Your task to perform on an android device: Do I have any events this weekend? Image 0: 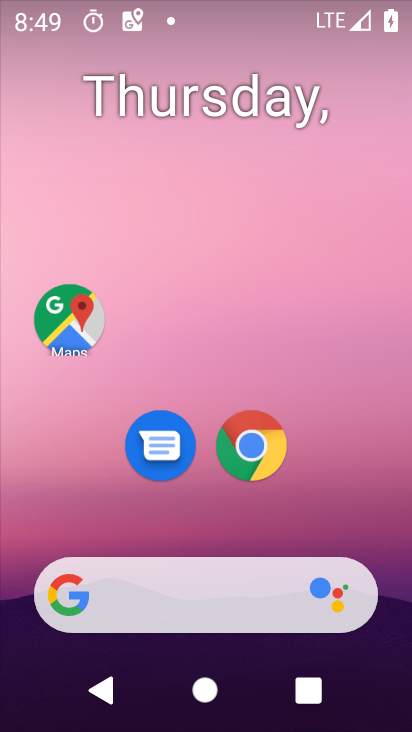
Step 0: drag from (223, 466) to (234, 391)
Your task to perform on an android device: Do I have any events this weekend? Image 1: 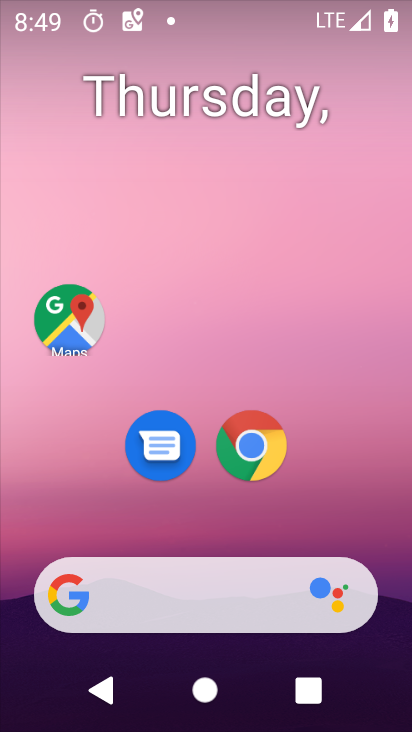
Step 1: drag from (224, 509) to (235, 331)
Your task to perform on an android device: Do I have any events this weekend? Image 2: 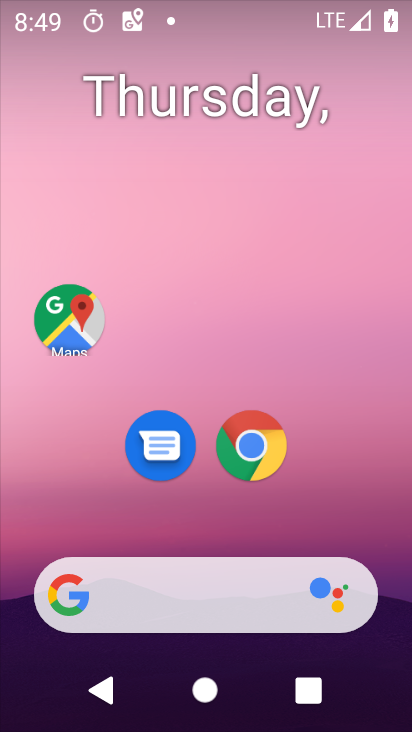
Step 2: drag from (214, 551) to (0, 301)
Your task to perform on an android device: Do I have any events this weekend? Image 3: 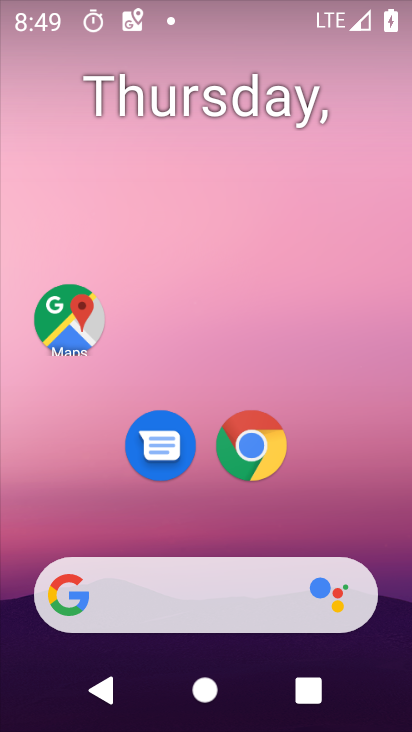
Step 3: drag from (194, 531) to (188, 217)
Your task to perform on an android device: Do I have any events this weekend? Image 4: 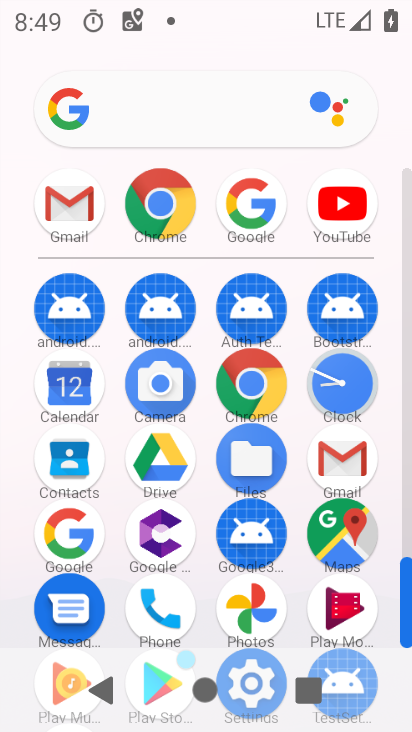
Step 4: drag from (205, 579) to (215, 286)
Your task to perform on an android device: Do I have any events this weekend? Image 5: 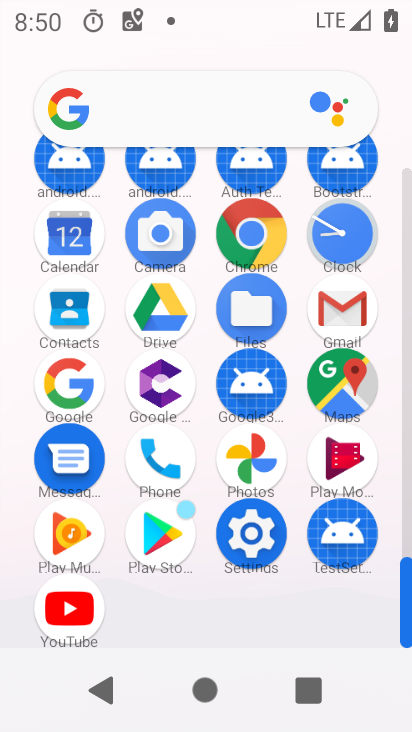
Step 5: click (58, 237)
Your task to perform on an android device: Do I have any events this weekend? Image 6: 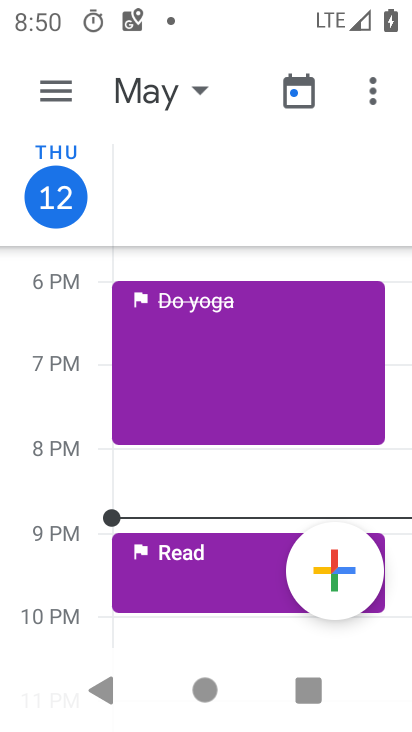
Step 6: drag from (226, 536) to (212, 10)
Your task to perform on an android device: Do I have any events this weekend? Image 7: 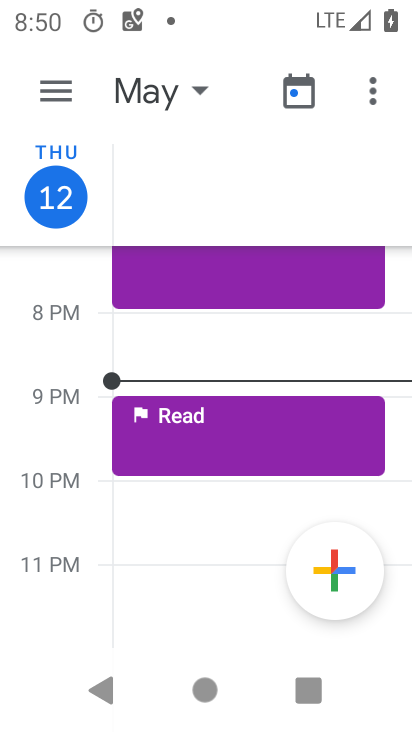
Step 7: drag from (238, 540) to (234, 259)
Your task to perform on an android device: Do I have any events this weekend? Image 8: 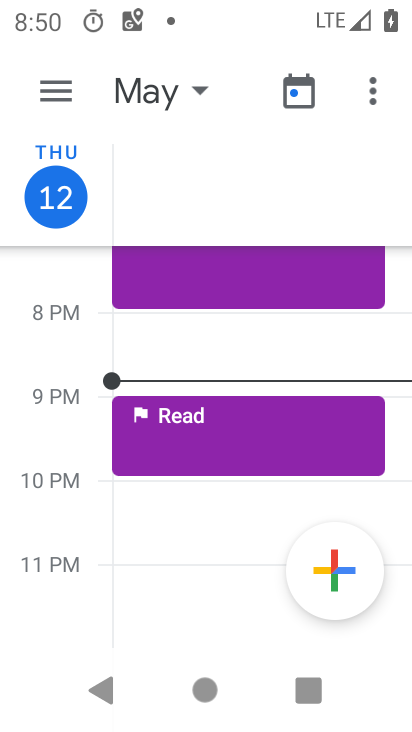
Step 8: click (174, 81)
Your task to perform on an android device: Do I have any events this weekend? Image 9: 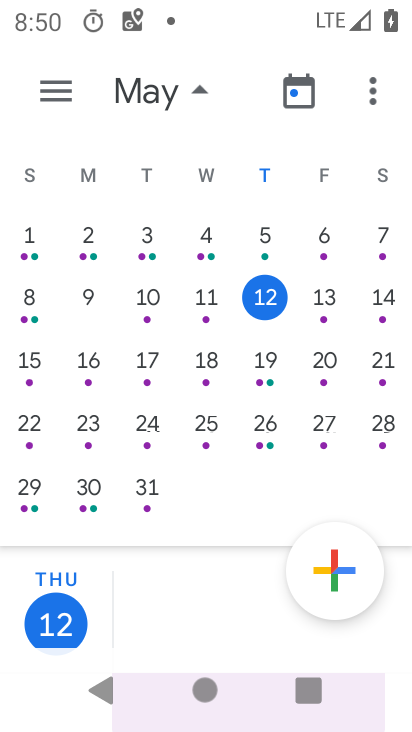
Step 9: click (162, 85)
Your task to perform on an android device: Do I have any events this weekend? Image 10: 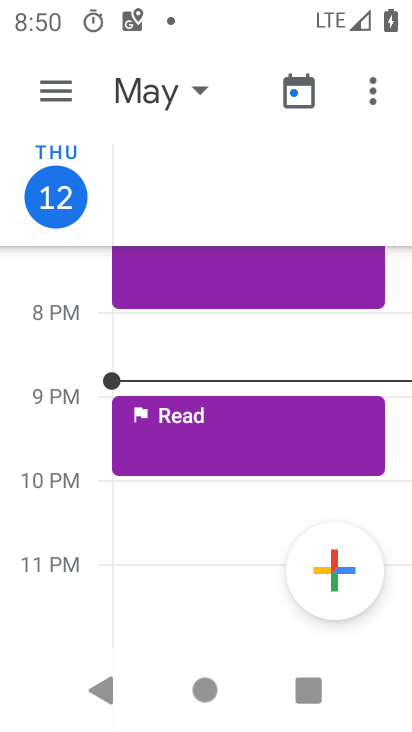
Step 10: click (148, 93)
Your task to perform on an android device: Do I have any events this weekend? Image 11: 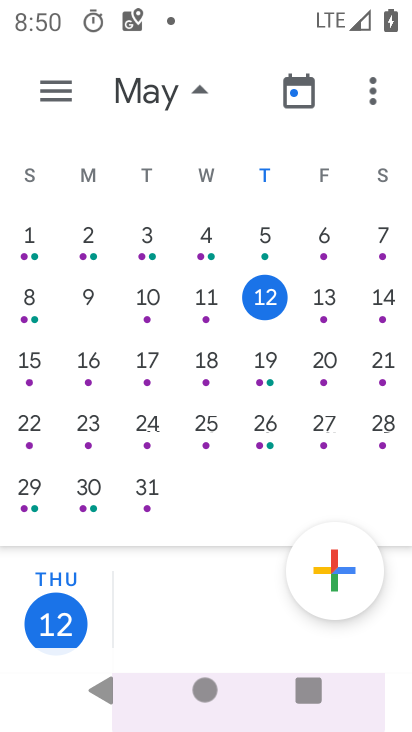
Step 11: click (322, 313)
Your task to perform on an android device: Do I have any events this weekend? Image 12: 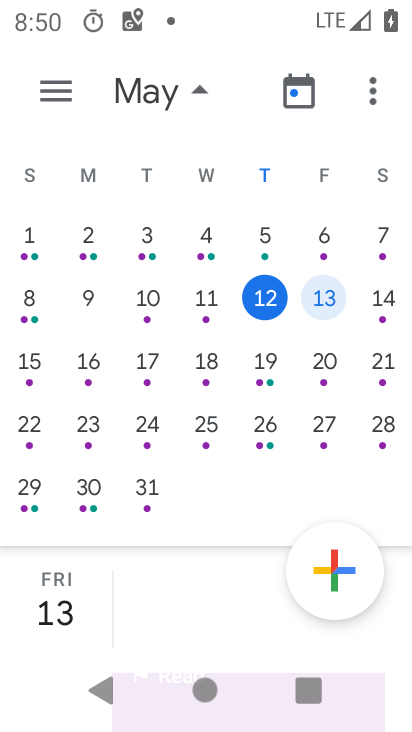
Step 12: task complete